Your task to perform on an android device: Open Google Chrome and click the shortcut for Amazon.com Image 0: 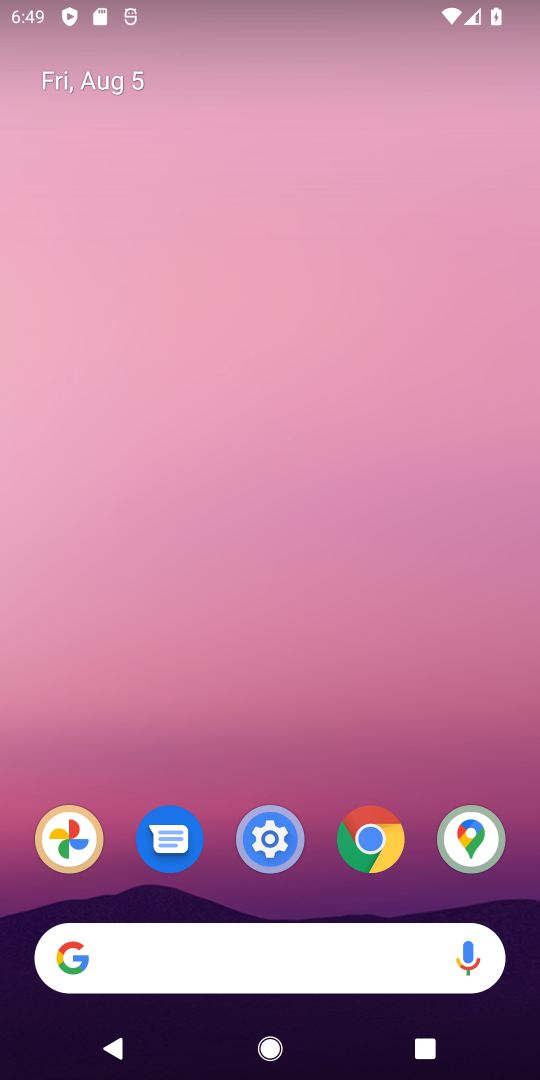
Step 0: click (364, 847)
Your task to perform on an android device: Open Google Chrome and click the shortcut for Amazon.com Image 1: 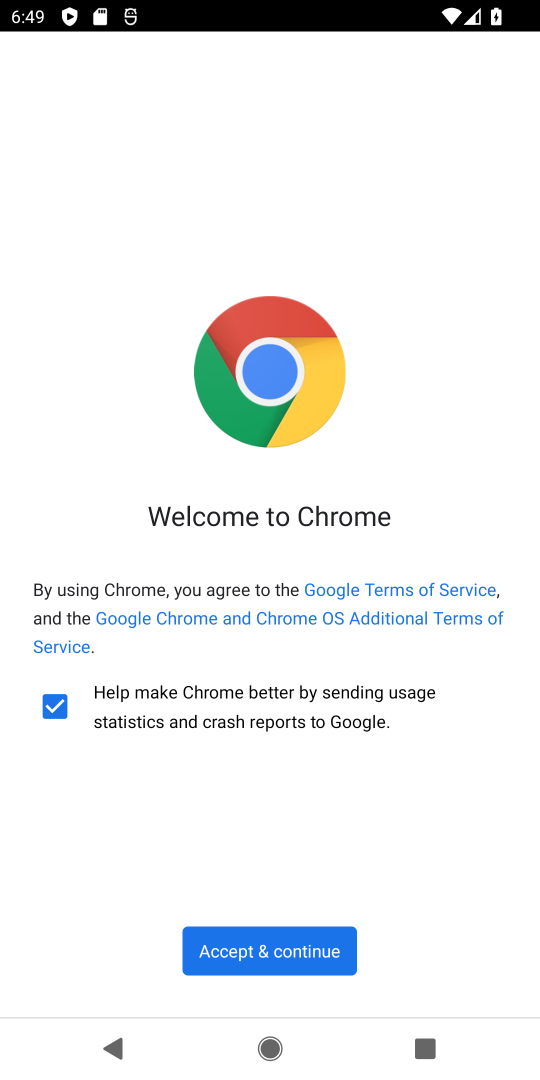
Step 1: click (300, 954)
Your task to perform on an android device: Open Google Chrome and click the shortcut for Amazon.com Image 2: 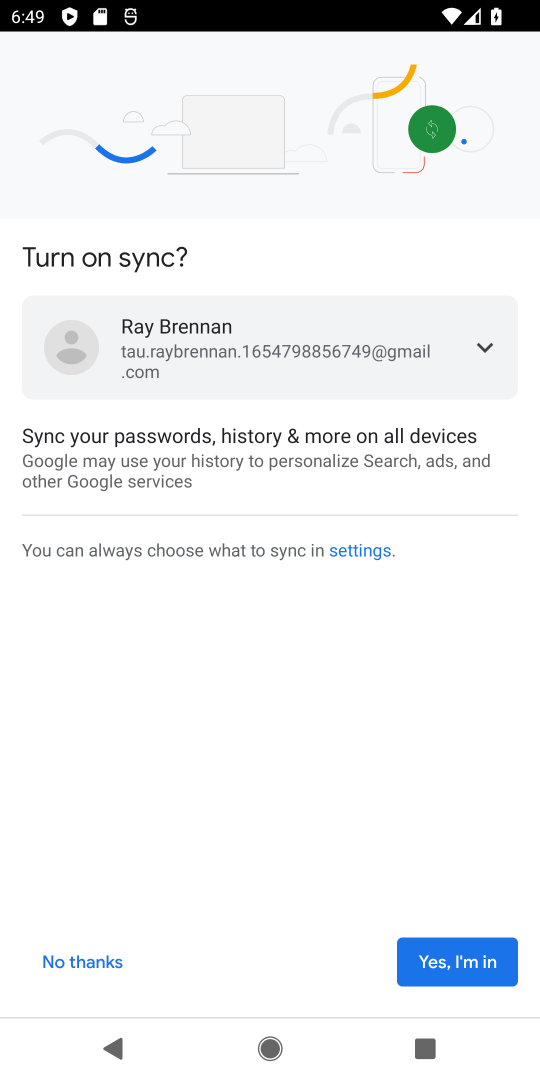
Step 2: click (452, 983)
Your task to perform on an android device: Open Google Chrome and click the shortcut for Amazon.com Image 3: 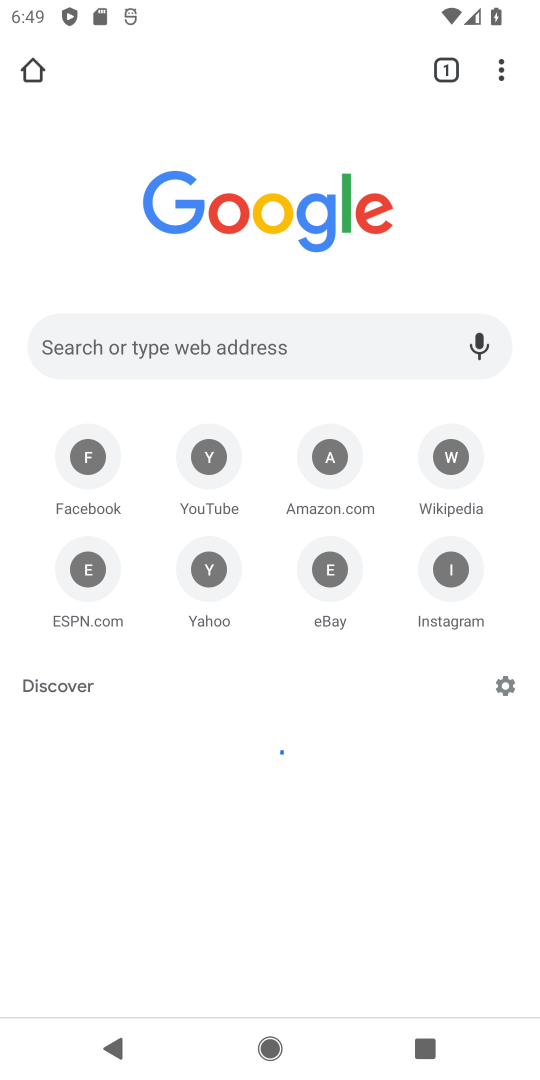
Step 3: click (458, 964)
Your task to perform on an android device: Open Google Chrome and click the shortcut for Amazon.com Image 4: 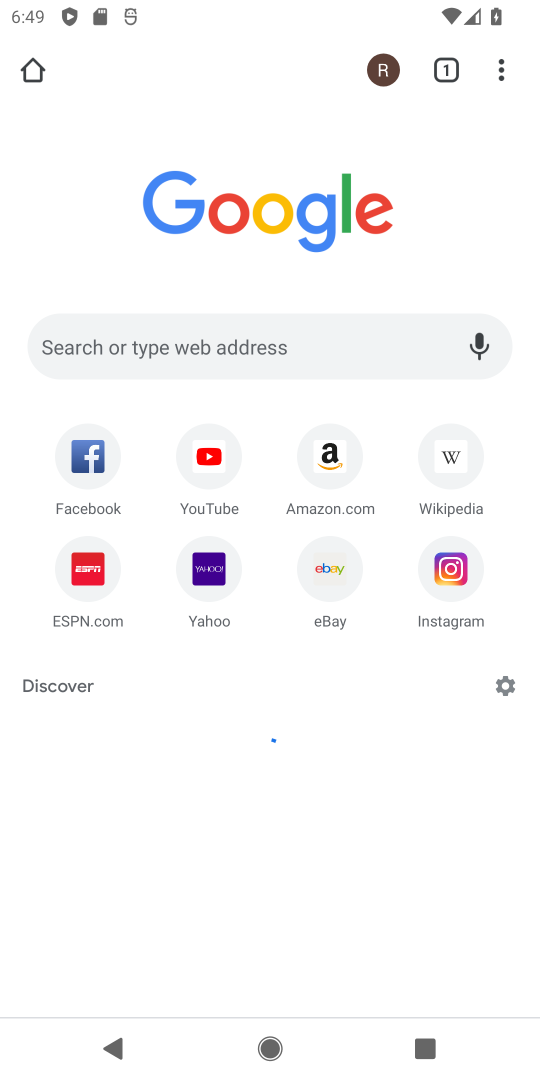
Step 4: click (333, 457)
Your task to perform on an android device: Open Google Chrome and click the shortcut for Amazon.com Image 5: 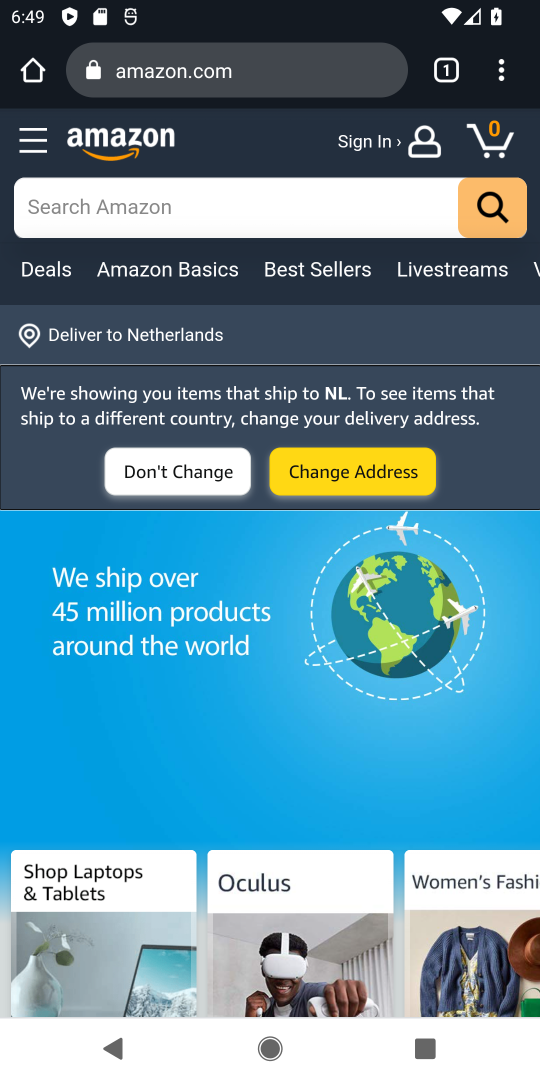
Step 5: task complete